Your task to perform on an android device: Go to Google maps Image 0: 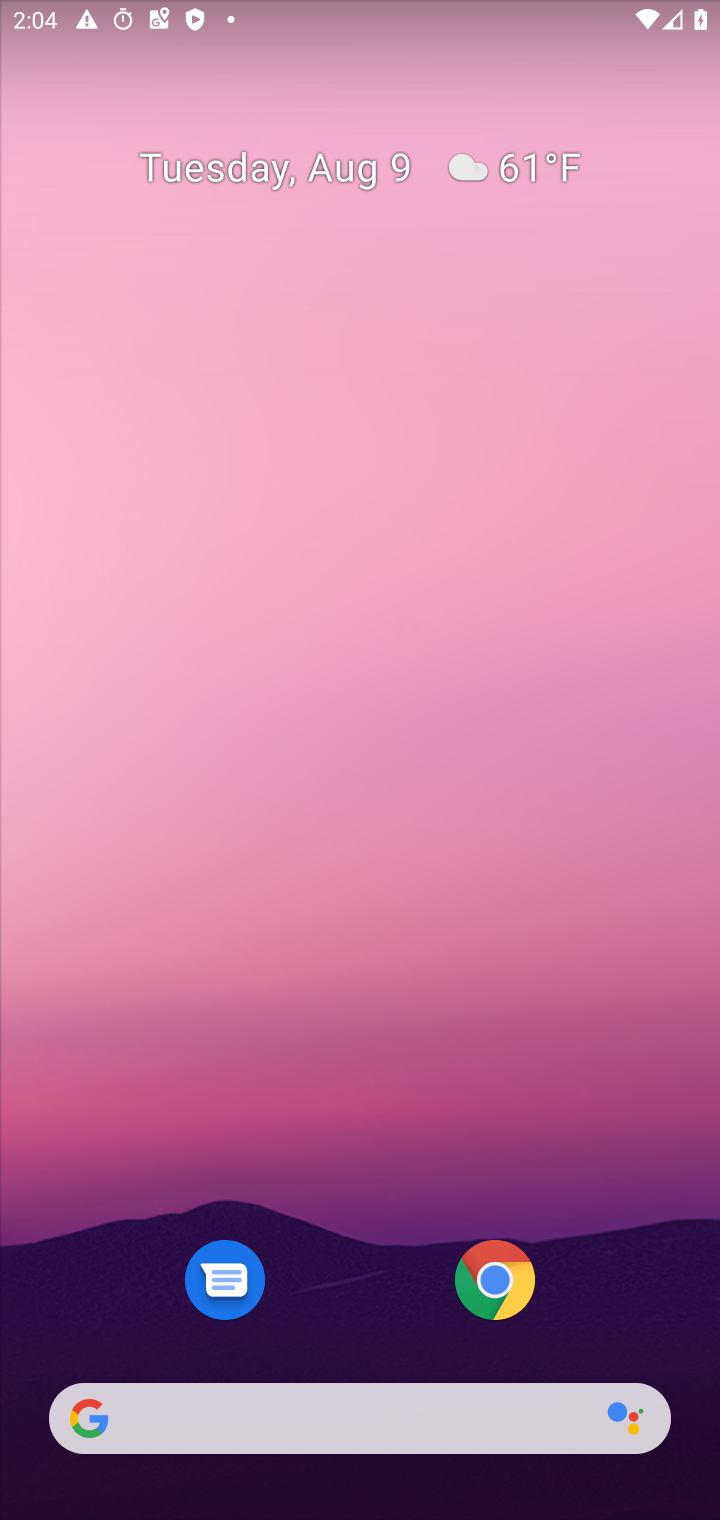
Step 0: press home button
Your task to perform on an android device: Go to Google maps Image 1: 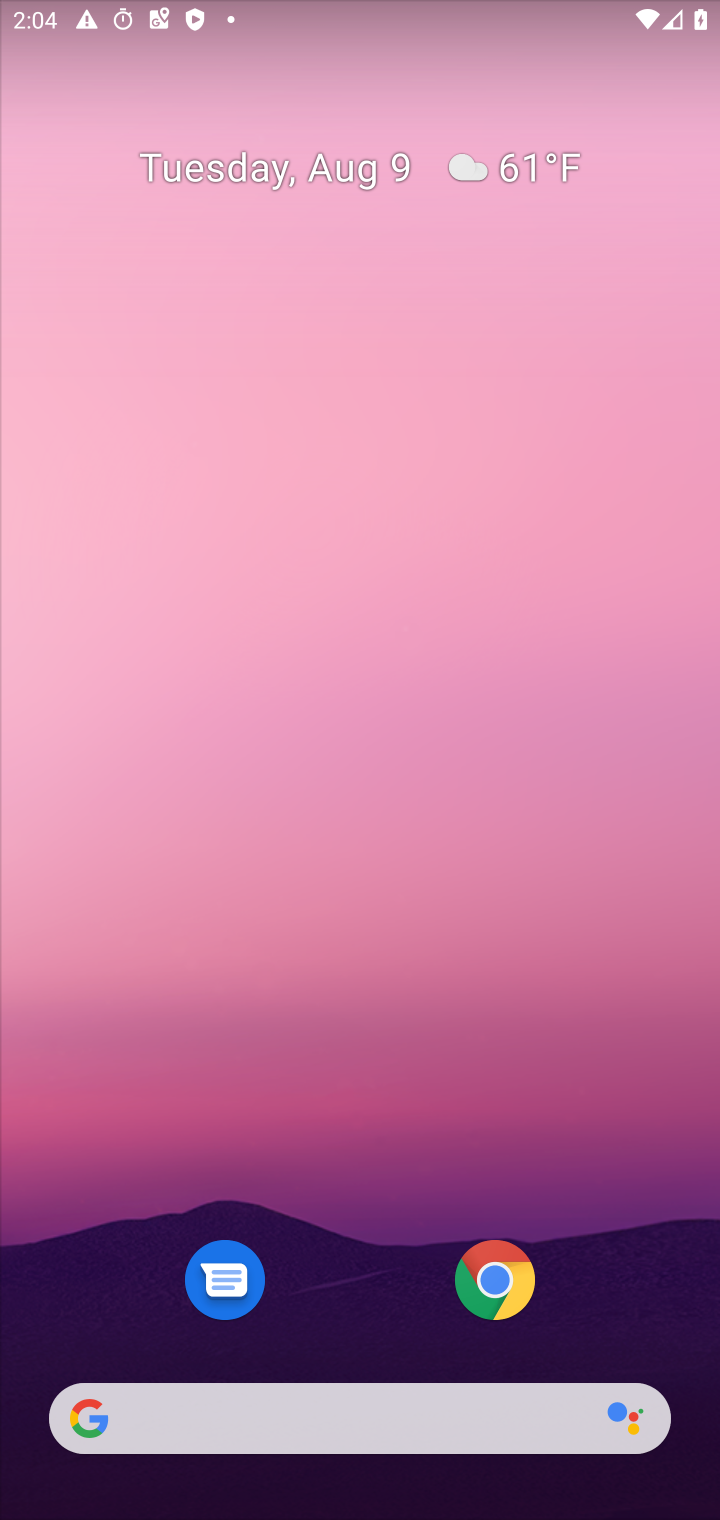
Step 1: drag from (312, 1399) to (278, 361)
Your task to perform on an android device: Go to Google maps Image 2: 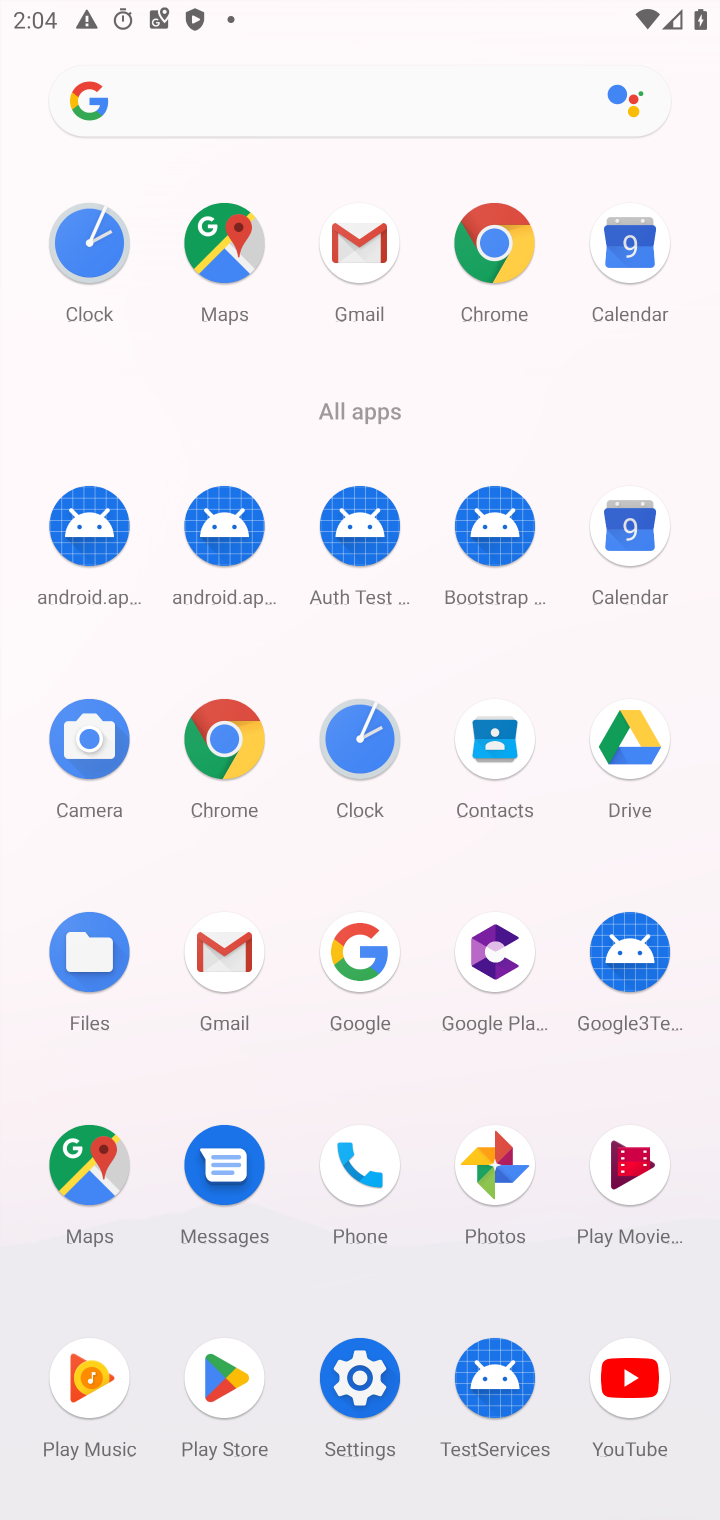
Step 2: click (86, 1186)
Your task to perform on an android device: Go to Google maps Image 3: 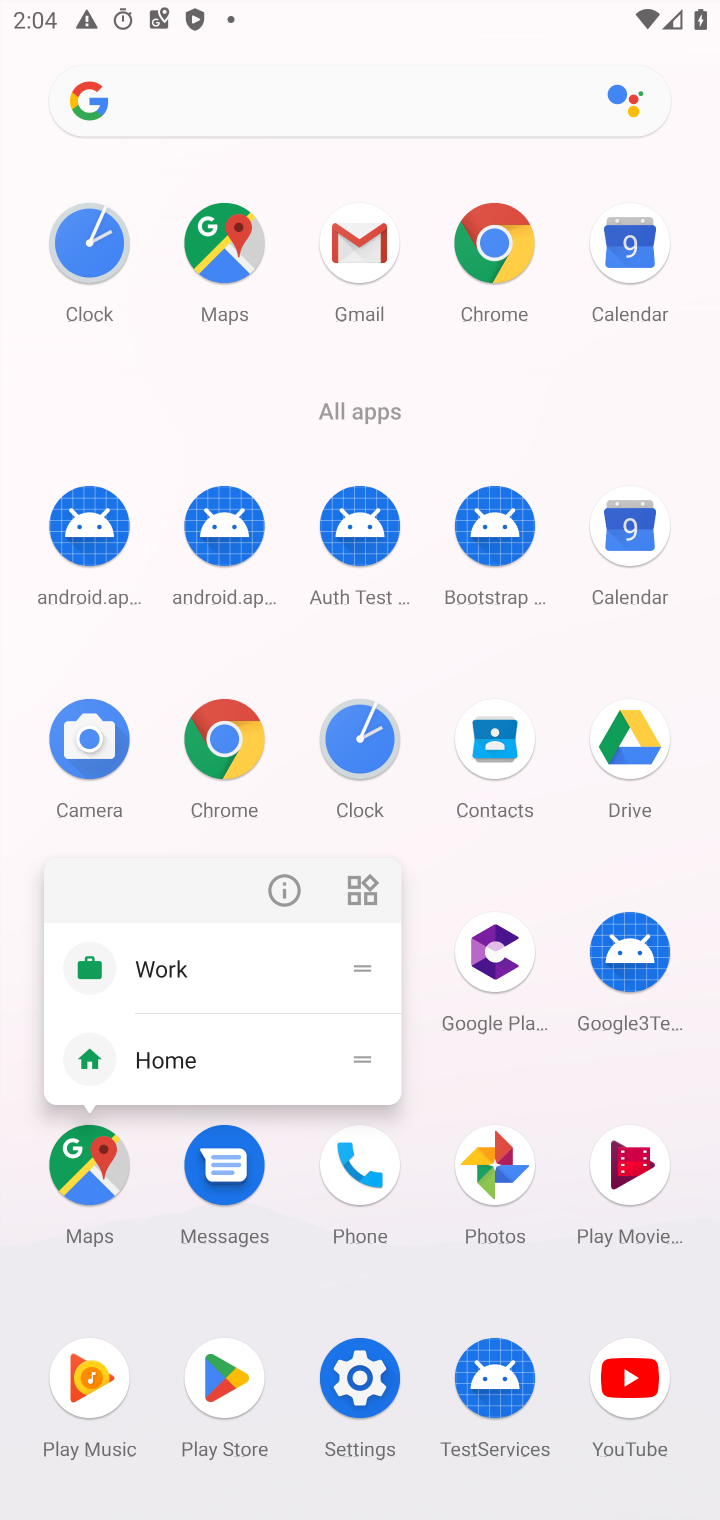
Step 3: click (88, 1177)
Your task to perform on an android device: Go to Google maps Image 4: 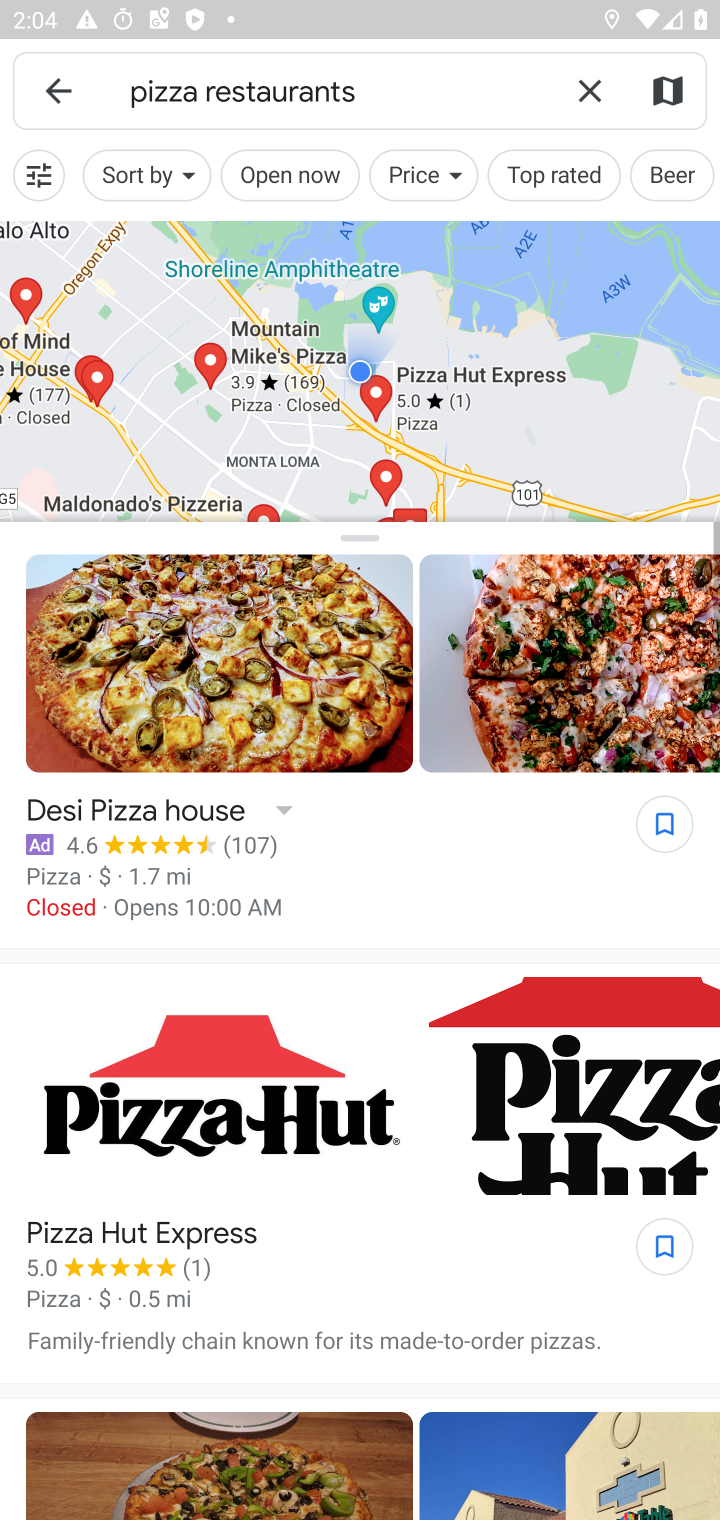
Step 4: click (593, 91)
Your task to perform on an android device: Go to Google maps Image 5: 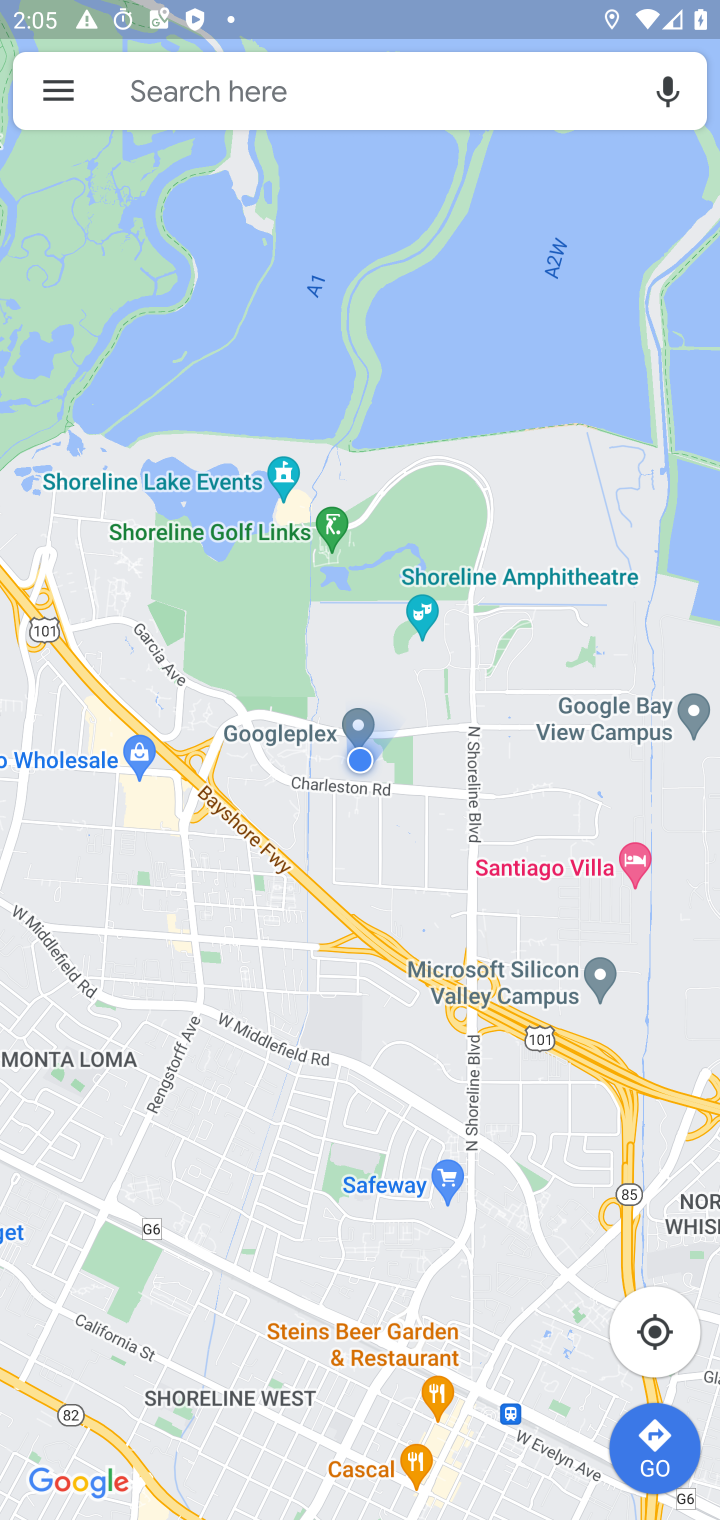
Step 5: task complete